Your task to perform on an android device: find photos in the google photos app Image 0: 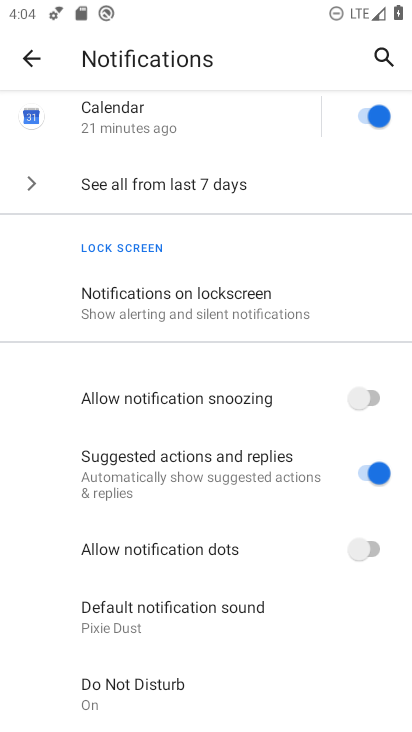
Step 0: press home button
Your task to perform on an android device: find photos in the google photos app Image 1: 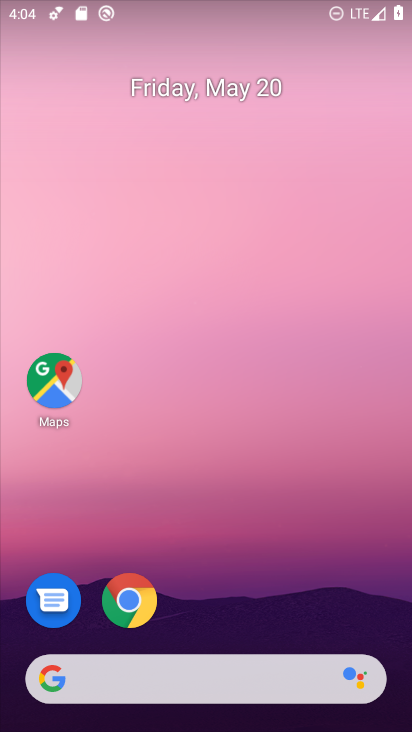
Step 1: drag from (226, 584) to (224, 100)
Your task to perform on an android device: find photos in the google photos app Image 2: 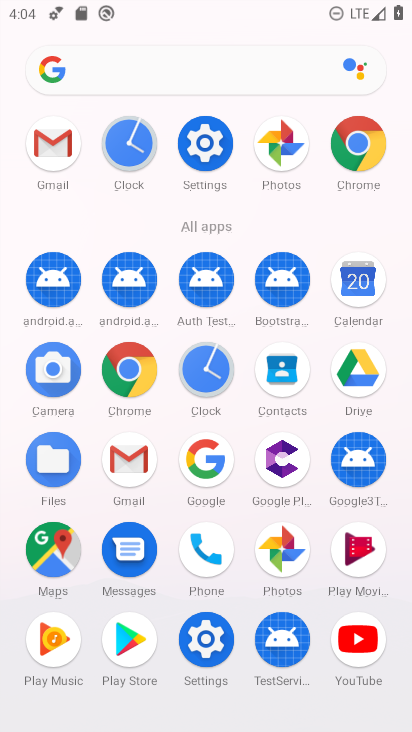
Step 2: click (274, 554)
Your task to perform on an android device: find photos in the google photos app Image 3: 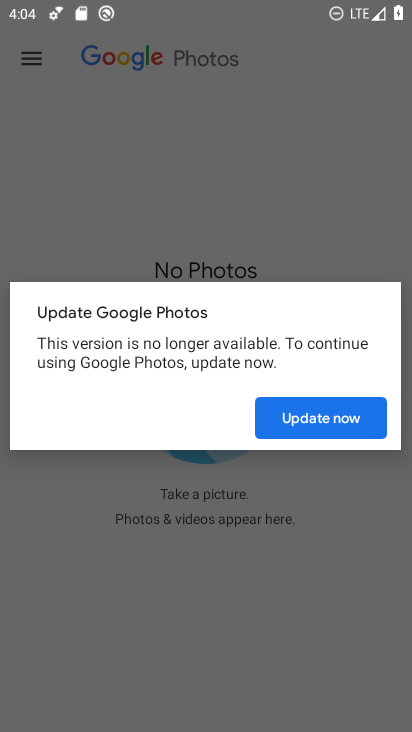
Step 3: click (292, 414)
Your task to perform on an android device: find photos in the google photos app Image 4: 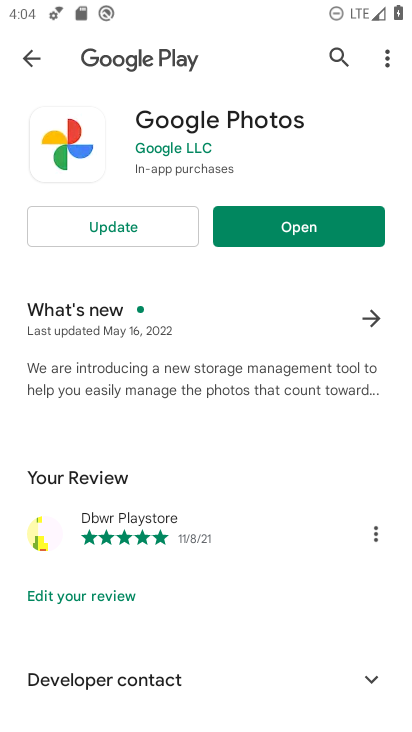
Step 4: click (283, 229)
Your task to perform on an android device: find photos in the google photos app Image 5: 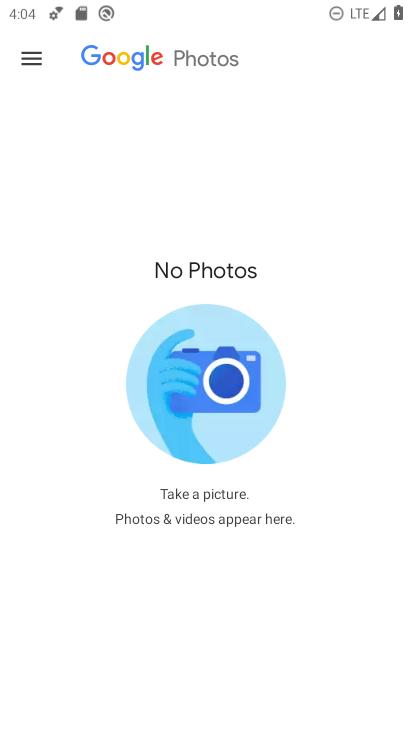
Step 5: task complete